Your task to perform on an android device: Open privacy settings Image 0: 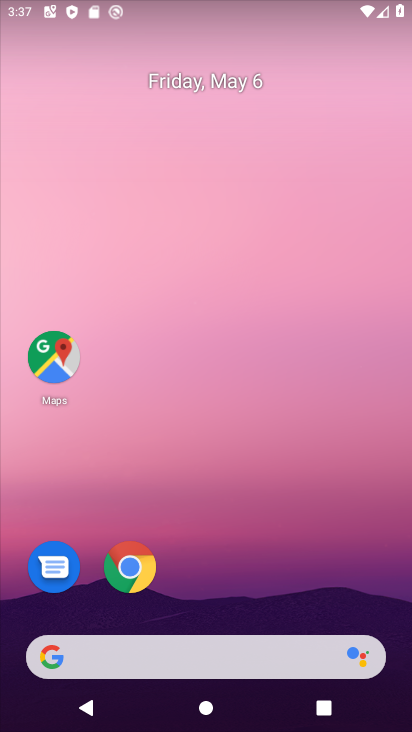
Step 0: drag from (171, 485) to (264, 179)
Your task to perform on an android device: Open privacy settings Image 1: 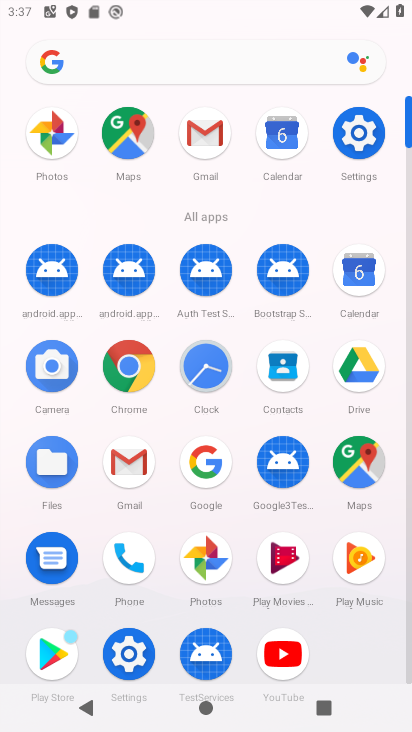
Step 1: click (344, 137)
Your task to perform on an android device: Open privacy settings Image 2: 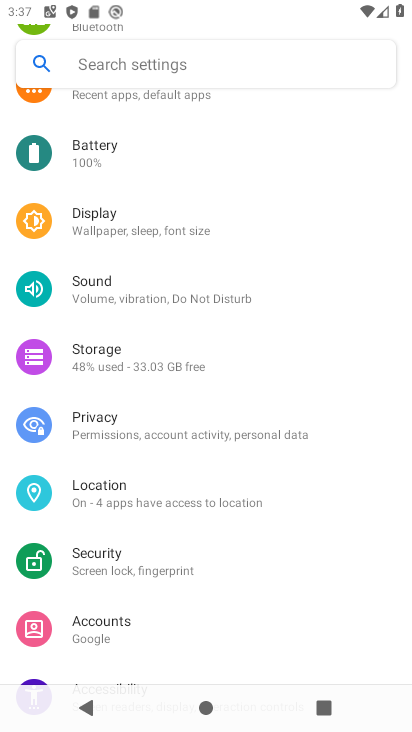
Step 2: click (132, 426)
Your task to perform on an android device: Open privacy settings Image 3: 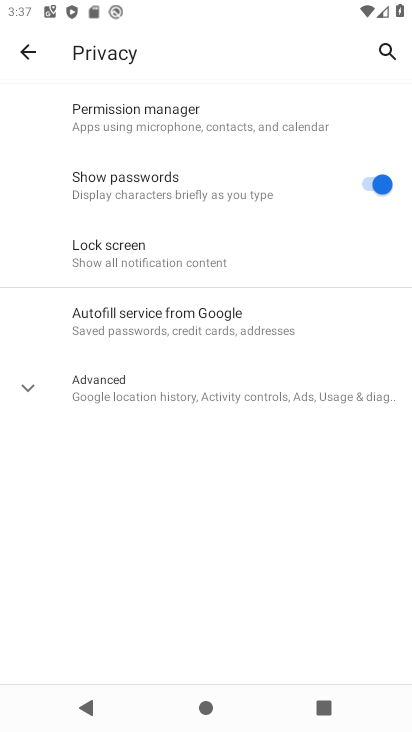
Step 3: task complete